Your task to perform on an android device: see creations saved in the google photos Image 0: 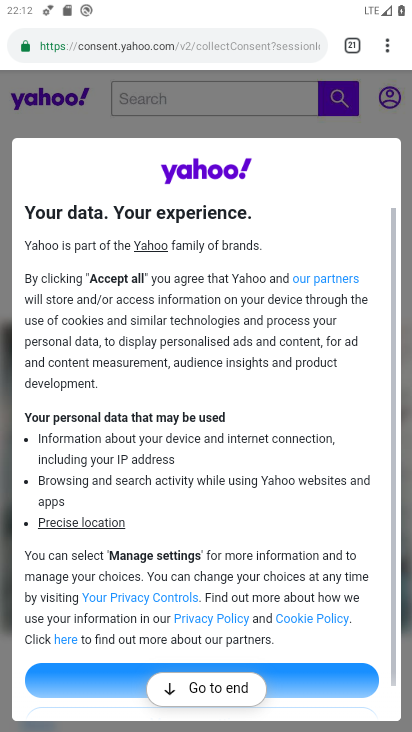
Step 0: press home button
Your task to perform on an android device: see creations saved in the google photos Image 1: 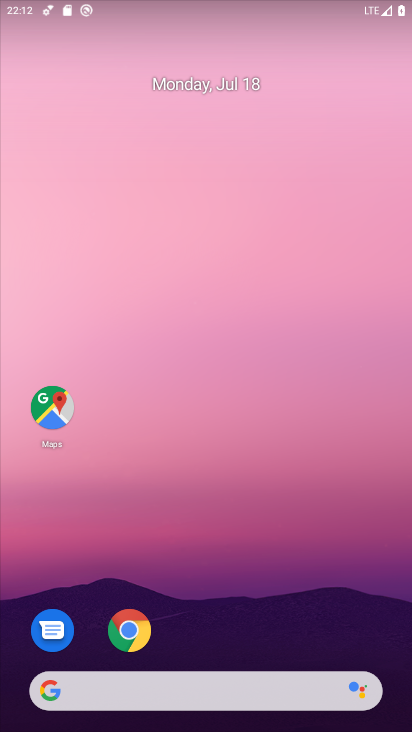
Step 1: drag from (240, 645) to (300, 188)
Your task to perform on an android device: see creations saved in the google photos Image 2: 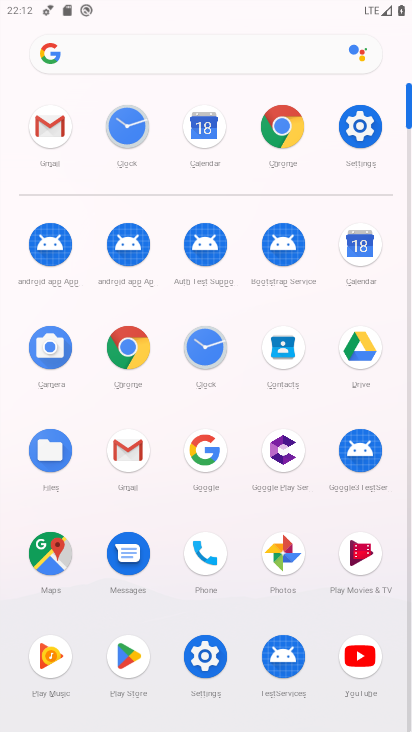
Step 2: click (286, 544)
Your task to perform on an android device: see creations saved in the google photos Image 3: 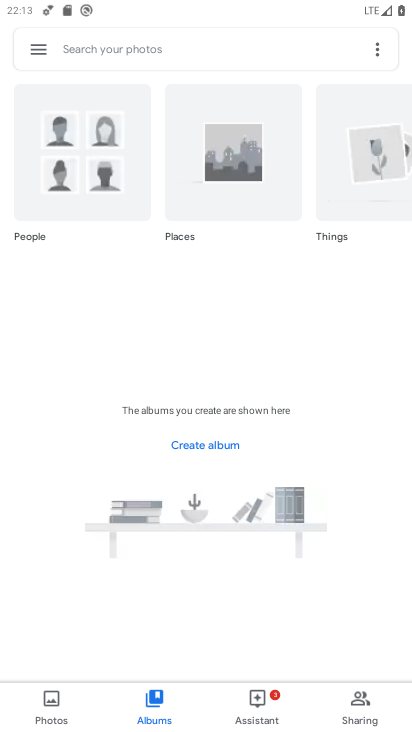
Step 3: task complete